Your task to perform on an android device: turn on data saver in the chrome app Image 0: 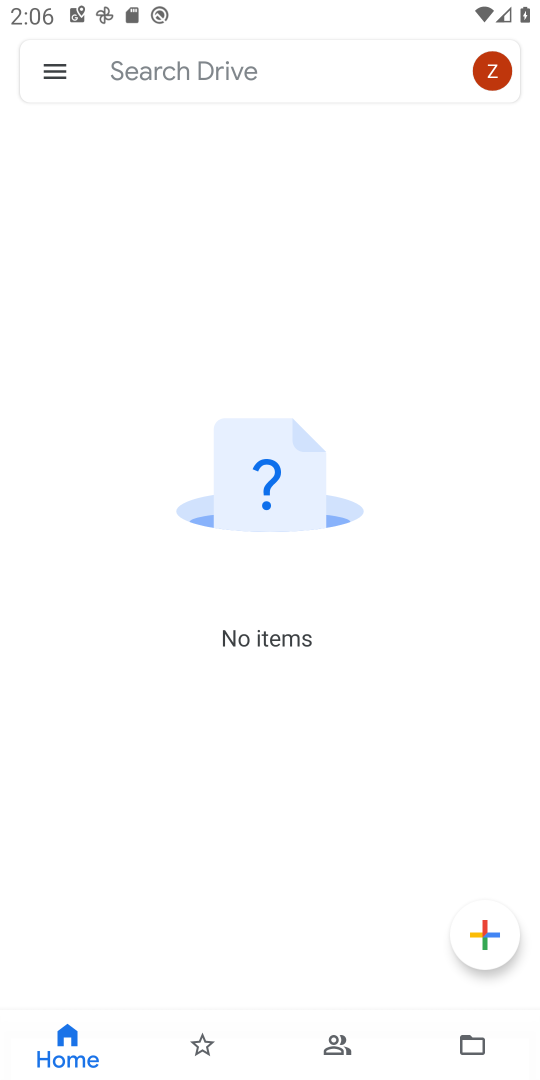
Step 0: press home button
Your task to perform on an android device: turn on data saver in the chrome app Image 1: 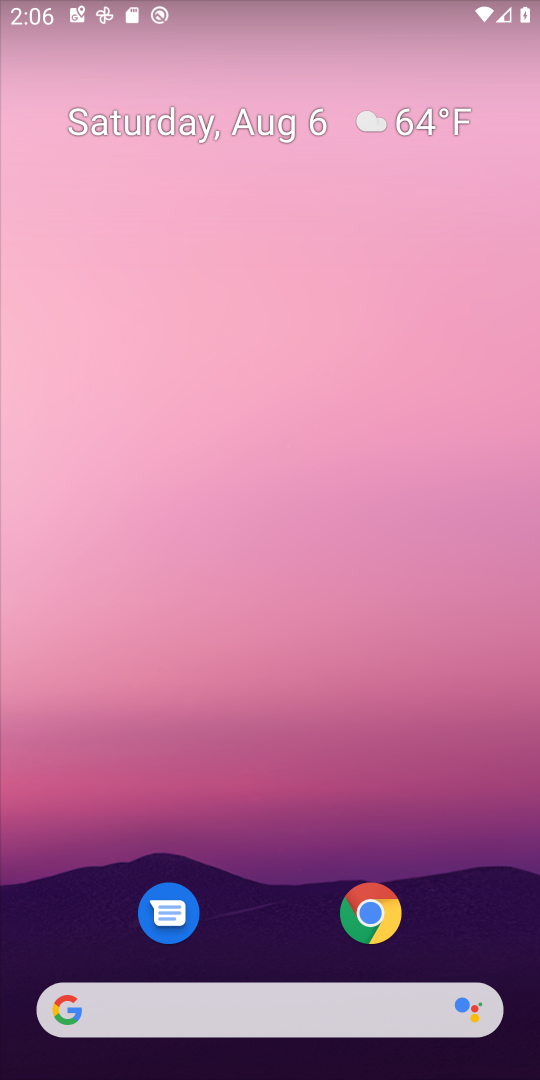
Step 1: drag from (452, 893) to (459, 290)
Your task to perform on an android device: turn on data saver in the chrome app Image 2: 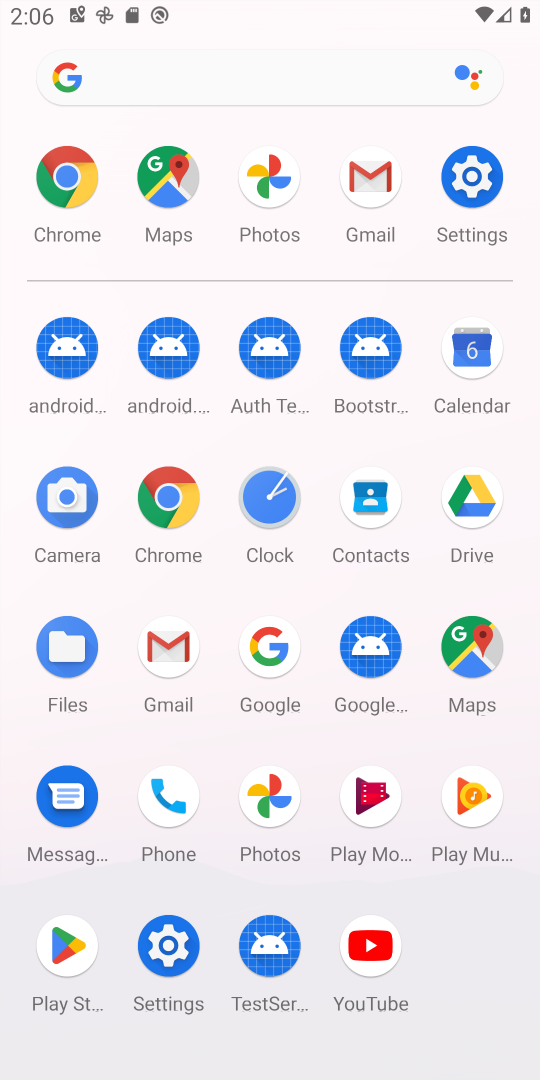
Step 2: click (168, 496)
Your task to perform on an android device: turn on data saver in the chrome app Image 3: 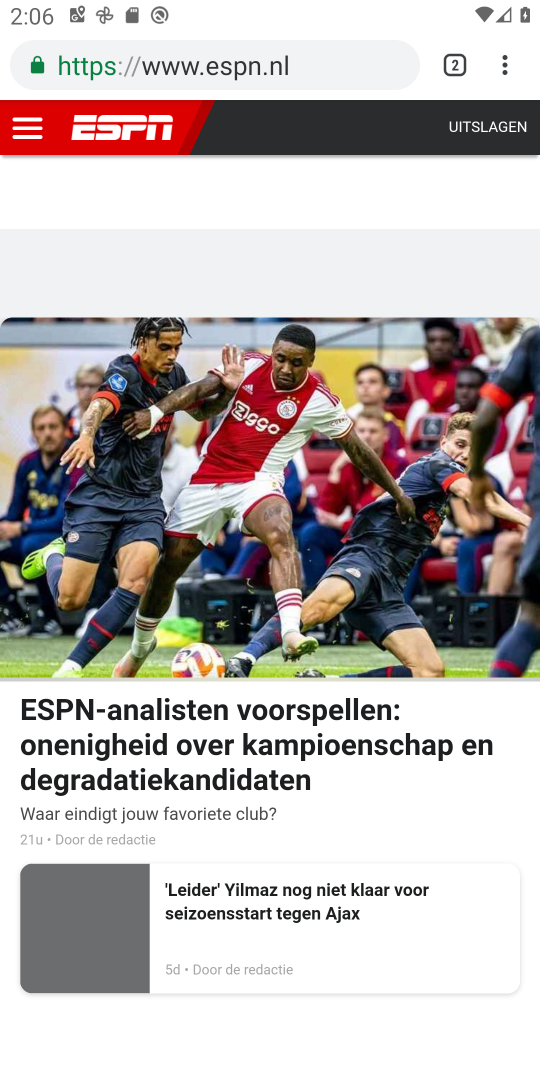
Step 3: click (503, 64)
Your task to perform on an android device: turn on data saver in the chrome app Image 4: 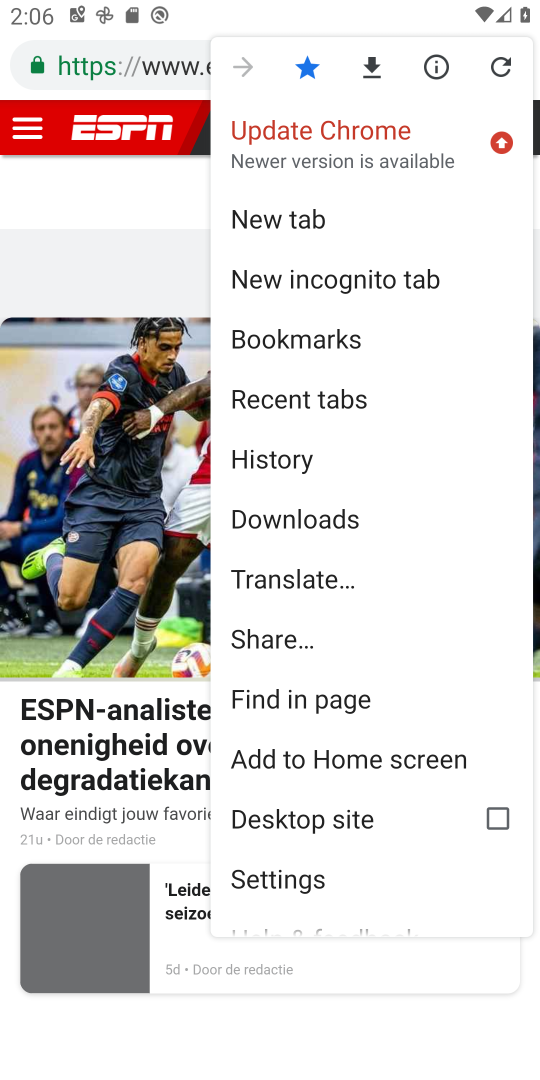
Step 4: click (287, 879)
Your task to perform on an android device: turn on data saver in the chrome app Image 5: 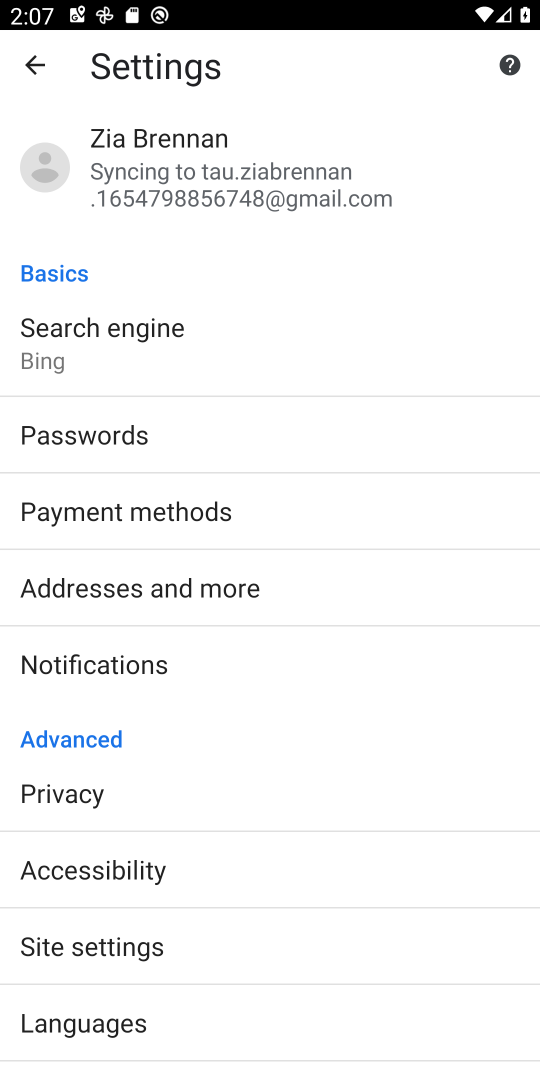
Step 5: drag from (287, 905) to (291, 819)
Your task to perform on an android device: turn on data saver in the chrome app Image 6: 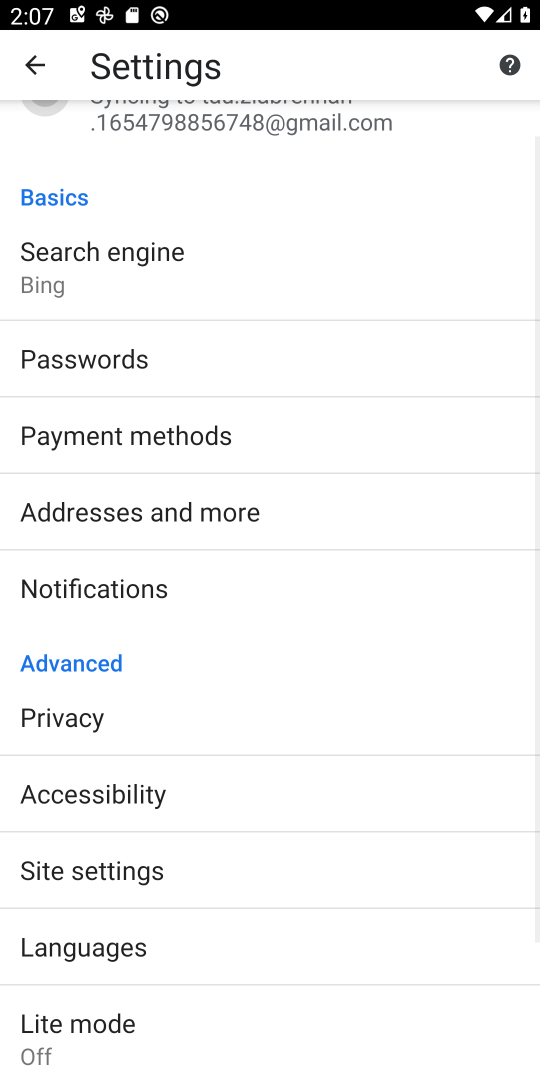
Step 6: drag from (319, 943) to (338, 784)
Your task to perform on an android device: turn on data saver in the chrome app Image 7: 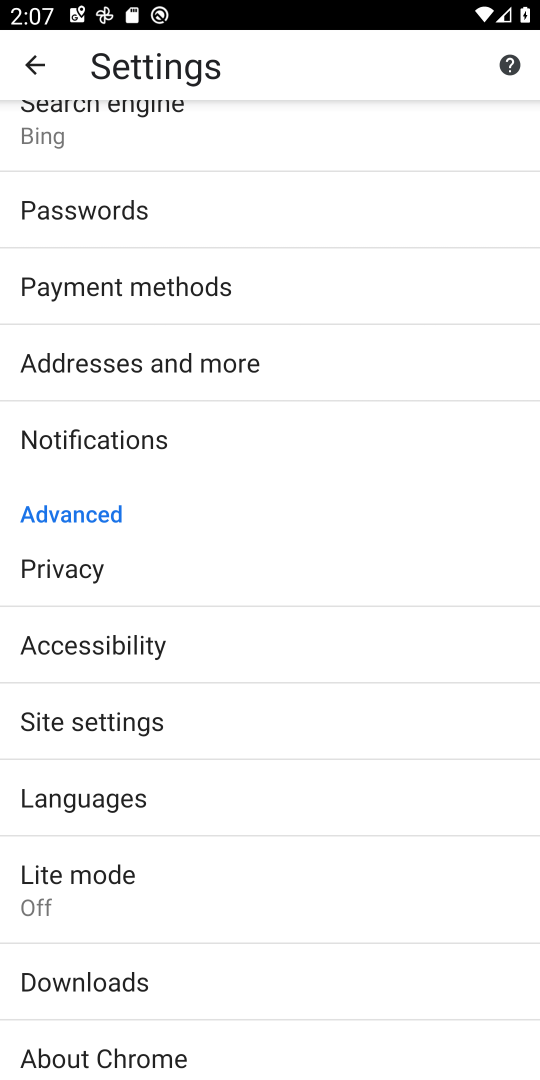
Step 7: drag from (360, 973) to (372, 773)
Your task to perform on an android device: turn on data saver in the chrome app Image 8: 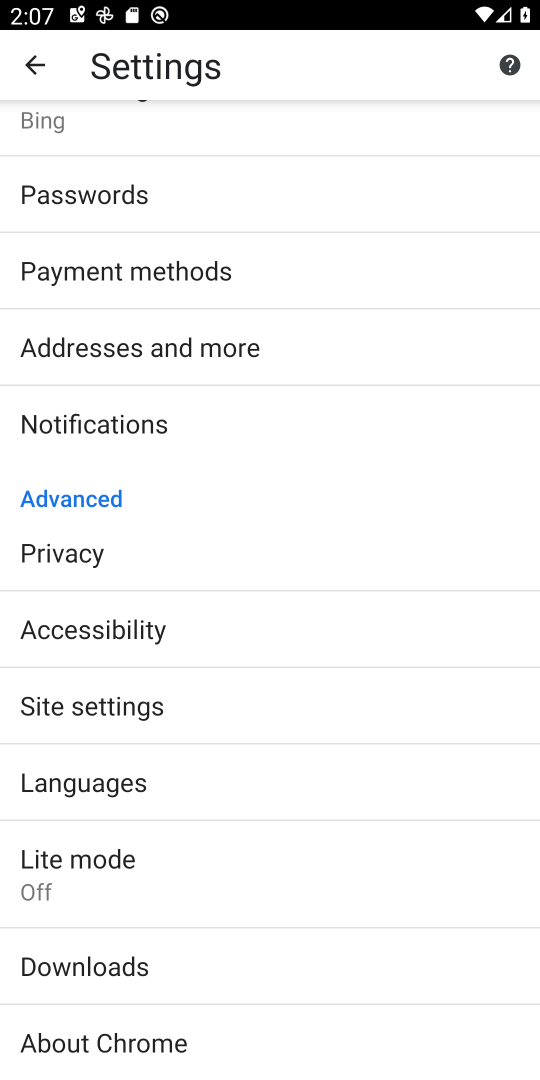
Step 8: click (373, 868)
Your task to perform on an android device: turn on data saver in the chrome app Image 9: 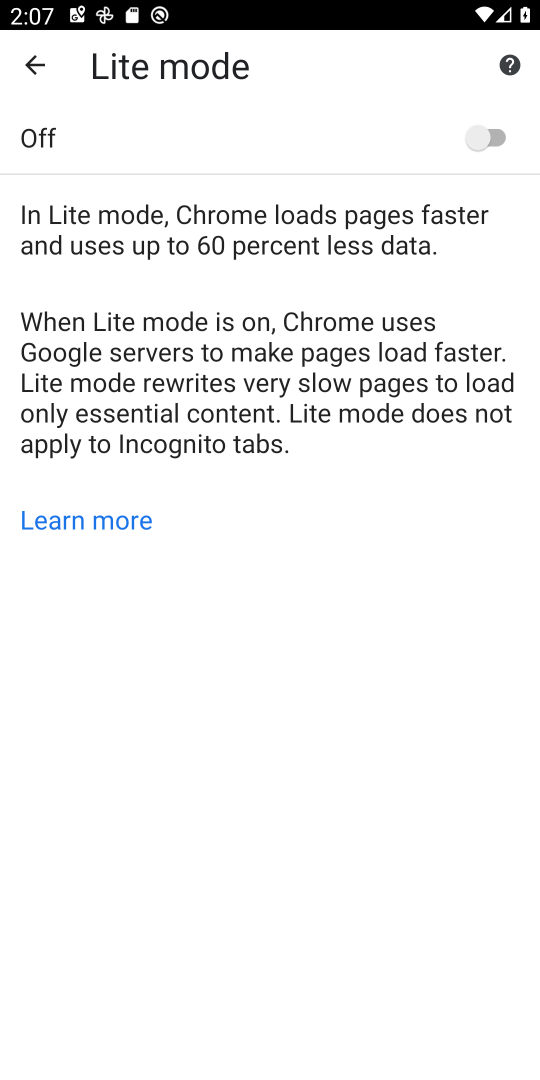
Step 9: click (477, 140)
Your task to perform on an android device: turn on data saver in the chrome app Image 10: 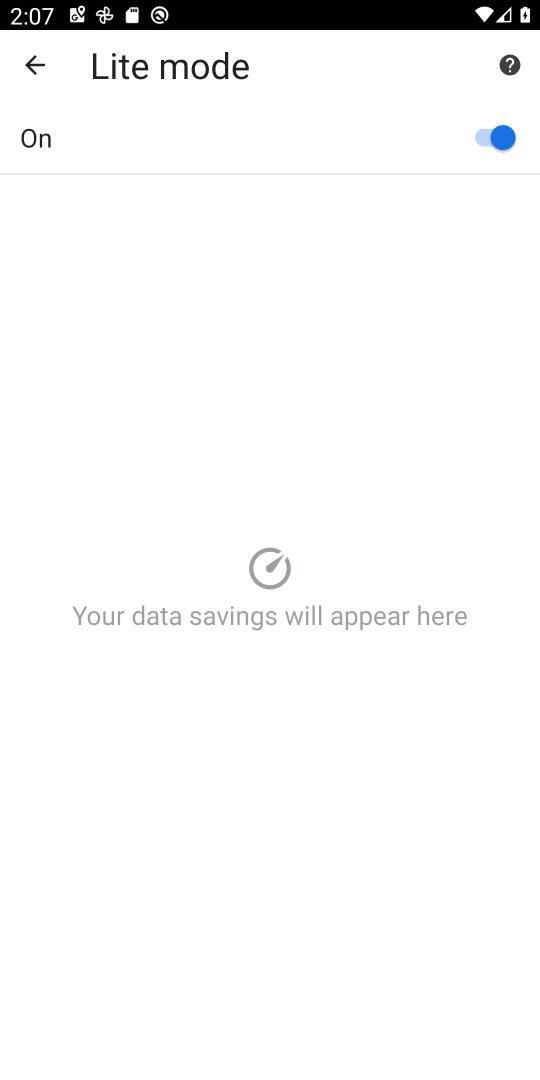
Step 10: task complete